Your task to perform on an android device: turn on bluetooth scan Image 0: 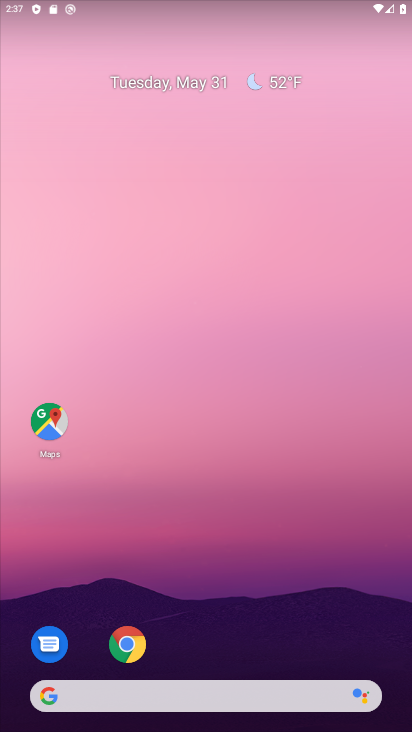
Step 0: drag from (287, 651) to (283, 205)
Your task to perform on an android device: turn on bluetooth scan Image 1: 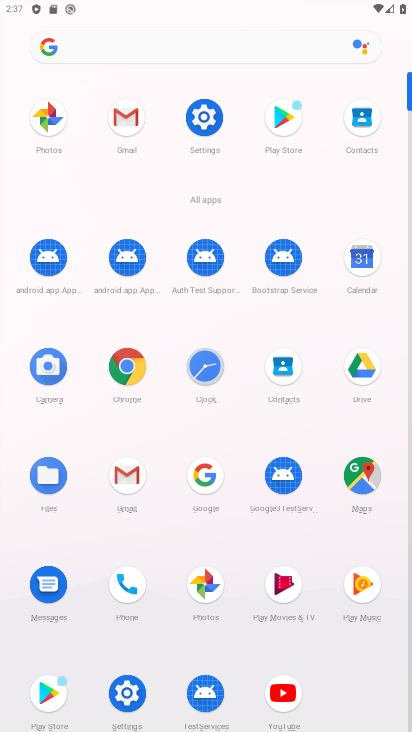
Step 1: click (207, 115)
Your task to perform on an android device: turn on bluetooth scan Image 2: 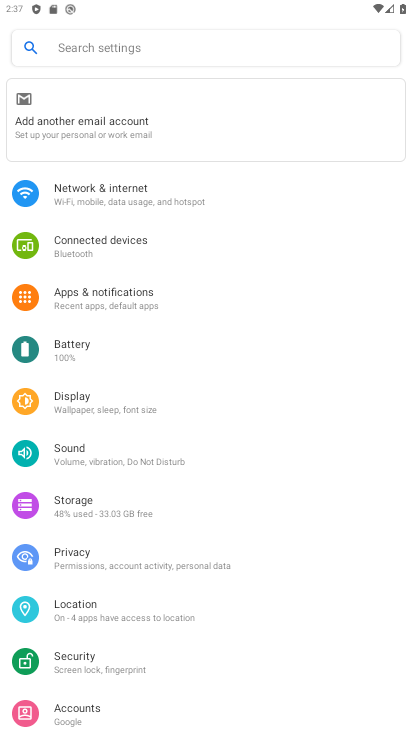
Step 2: click (179, 613)
Your task to perform on an android device: turn on bluetooth scan Image 3: 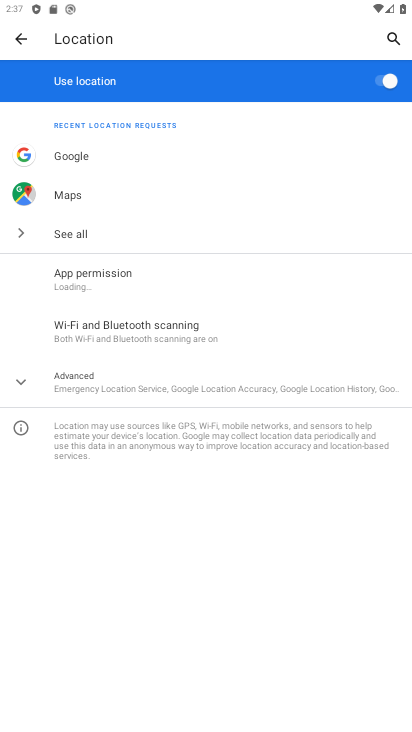
Step 3: click (175, 323)
Your task to perform on an android device: turn on bluetooth scan Image 4: 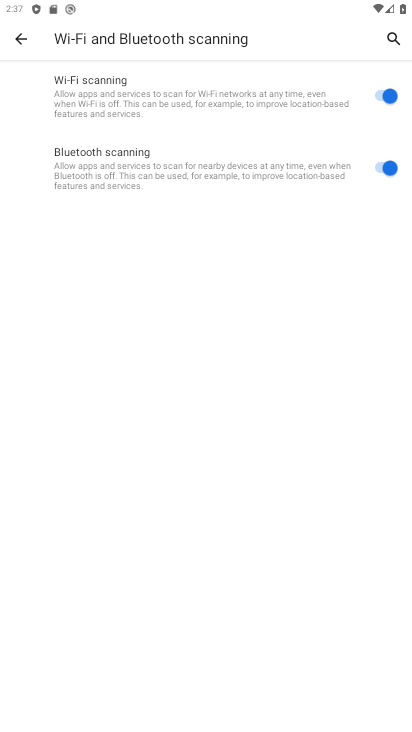
Step 4: task complete